Your task to perform on an android device: open a new tab in the chrome app Image 0: 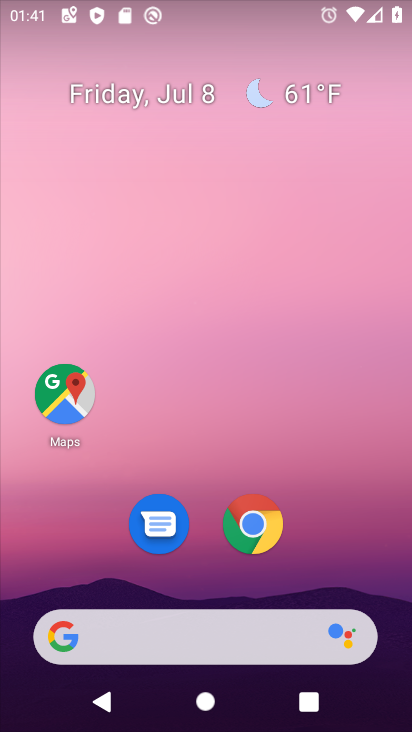
Step 0: click (249, 530)
Your task to perform on an android device: open a new tab in the chrome app Image 1: 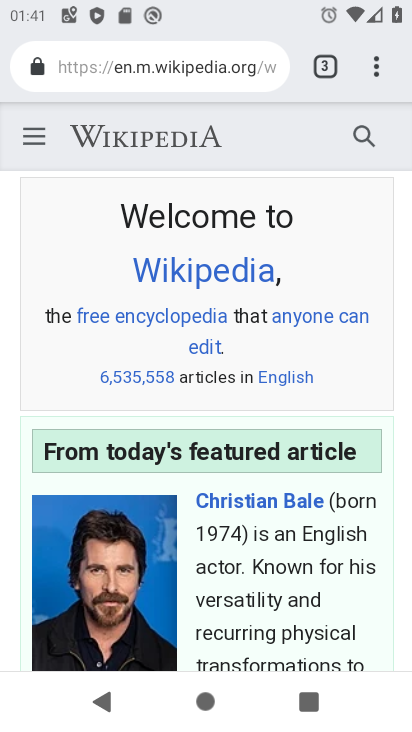
Step 1: click (372, 74)
Your task to perform on an android device: open a new tab in the chrome app Image 2: 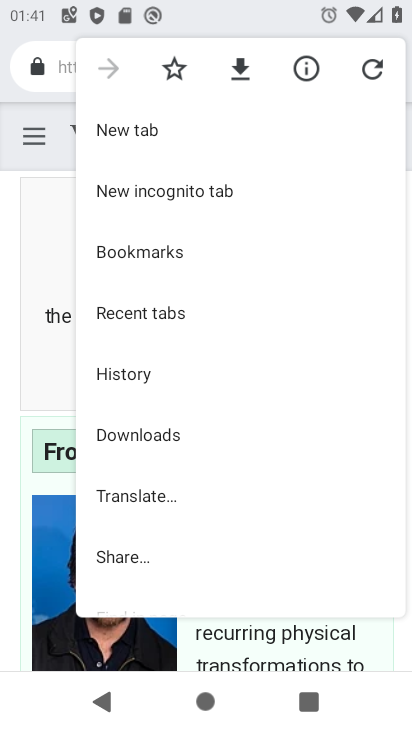
Step 2: click (263, 128)
Your task to perform on an android device: open a new tab in the chrome app Image 3: 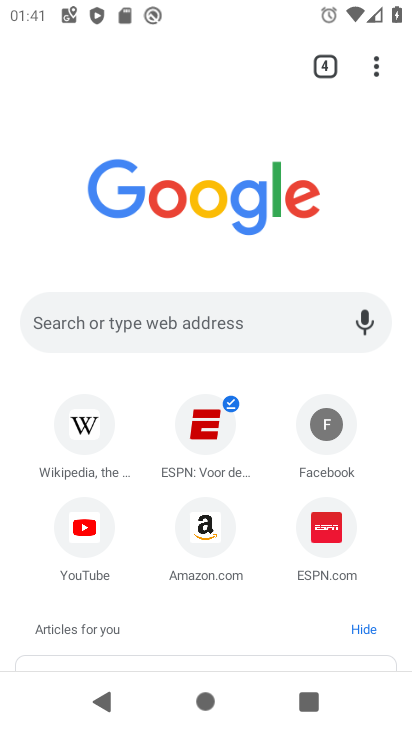
Step 3: task complete